Your task to perform on an android device: Open the calendar app, open the side menu, and click the "Day" option Image 0: 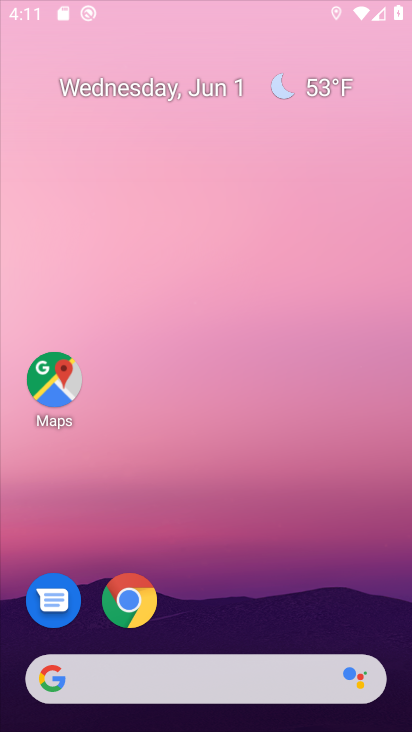
Step 0: drag from (209, 458) to (167, 197)
Your task to perform on an android device: Open the calendar app, open the side menu, and click the "Day" option Image 1: 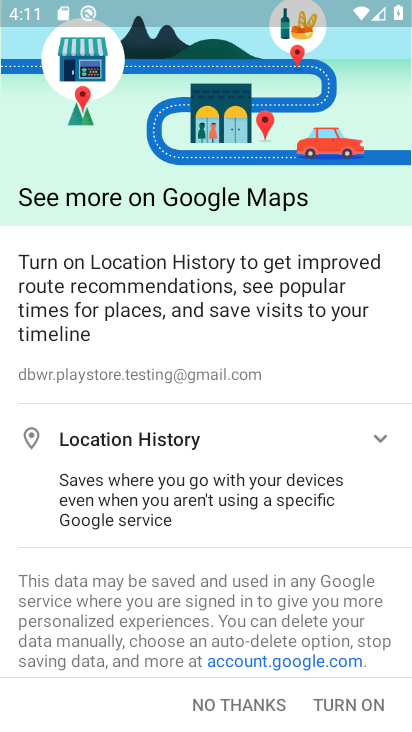
Step 1: press back button
Your task to perform on an android device: Open the calendar app, open the side menu, and click the "Day" option Image 2: 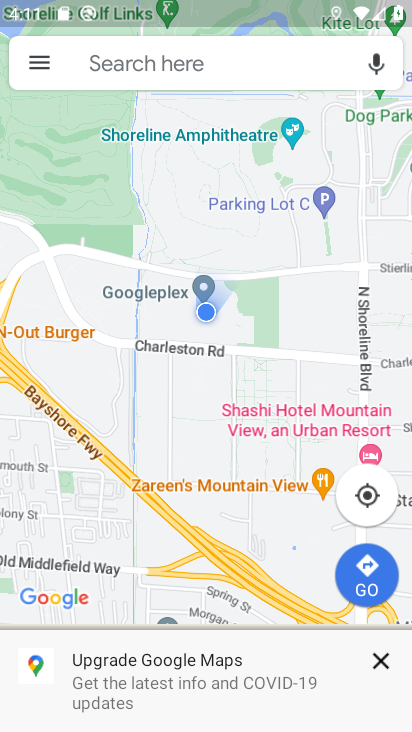
Step 2: press back button
Your task to perform on an android device: Open the calendar app, open the side menu, and click the "Day" option Image 3: 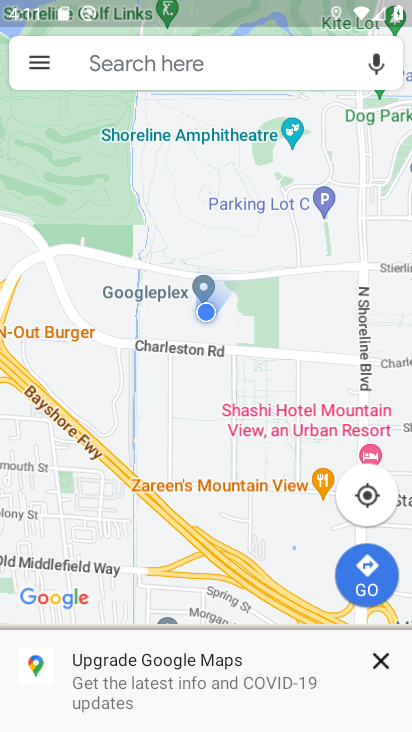
Step 3: press back button
Your task to perform on an android device: Open the calendar app, open the side menu, and click the "Day" option Image 4: 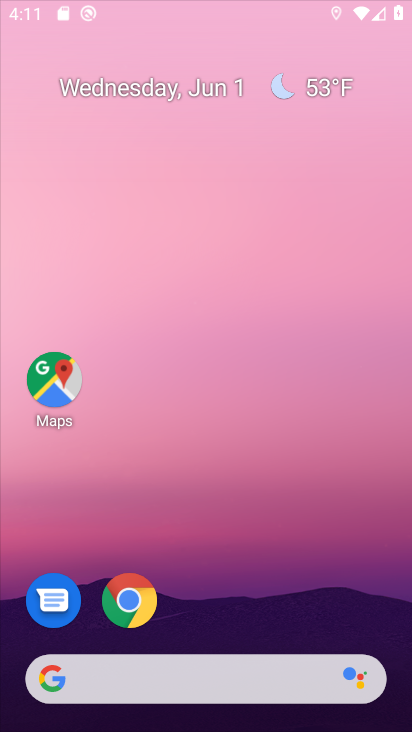
Step 4: press back button
Your task to perform on an android device: Open the calendar app, open the side menu, and click the "Day" option Image 5: 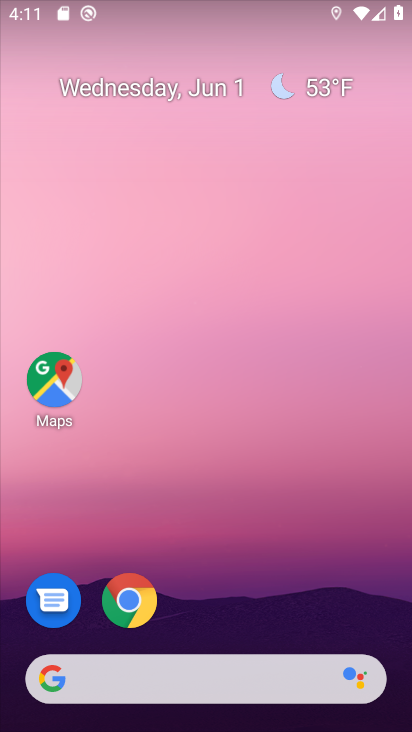
Step 5: drag from (220, 664) to (115, 169)
Your task to perform on an android device: Open the calendar app, open the side menu, and click the "Day" option Image 6: 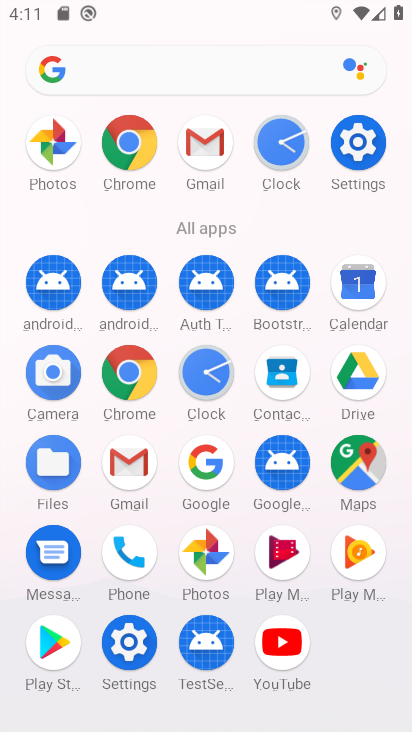
Step 6: click (308, 441)
Your task to perform on an android device: Open the calendar app, open the side menu, and click the "Day" option Image 7: 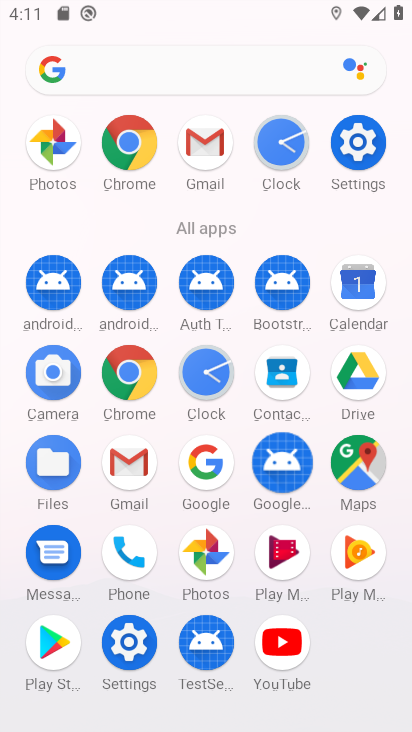
Step 7: click (368, 475)
Your task to perform on an android device: Open the calendar app, open the side menu, and click the "Day" option Image 8: 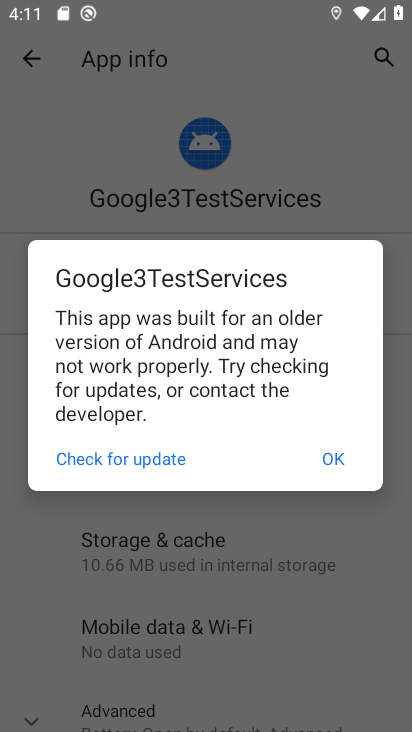
Step 8: click (332, 450)
Your task to perform on an android device: Open the calendar app, open the side menu, and click the "Day" option Image 9: 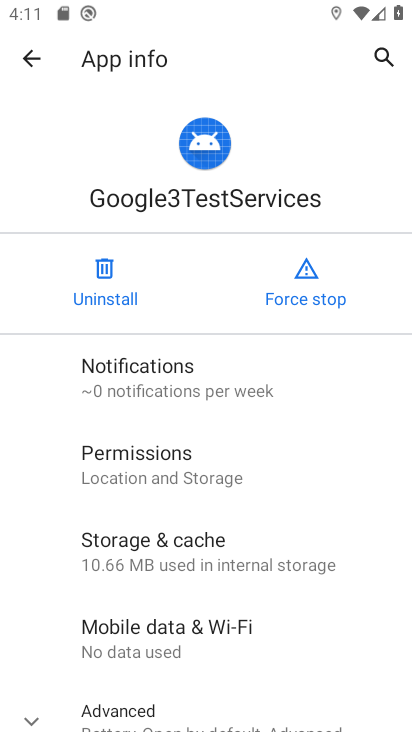
Step 9: click (29, 54)
Your task to perform on an android device: Open the calendar app, open the side menu, and click the "Day" option Image 10: 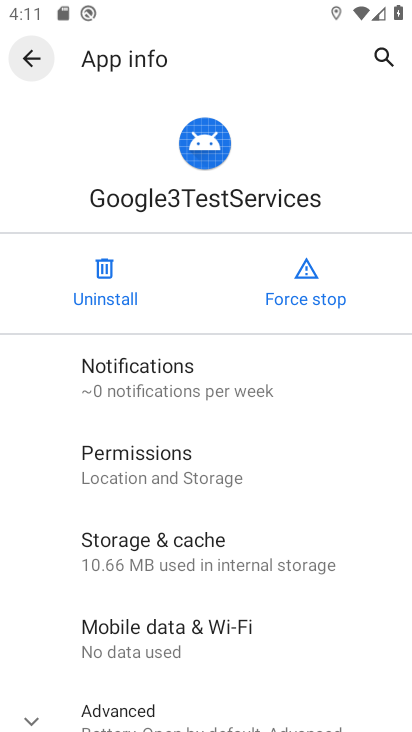
Step 10: click (29, 54)
Your task to perform on an android device: Open the calendar app, open the side menu, and click the "Day" option Image 11: 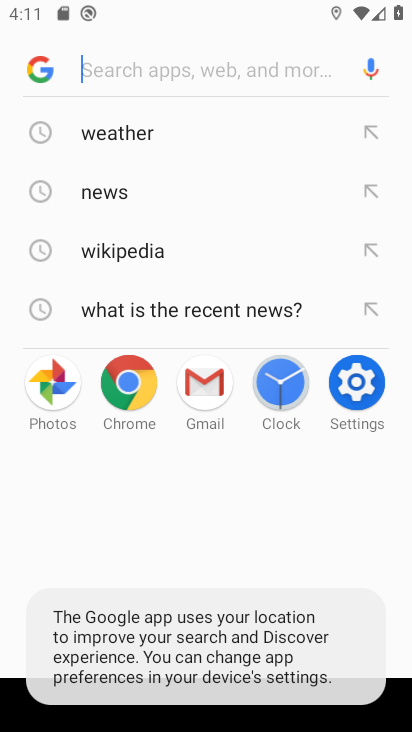
Step 11: press back button
Your task to perform on an android device: Open the calendar app, open the side menu, and click the "Day" option Image 12: 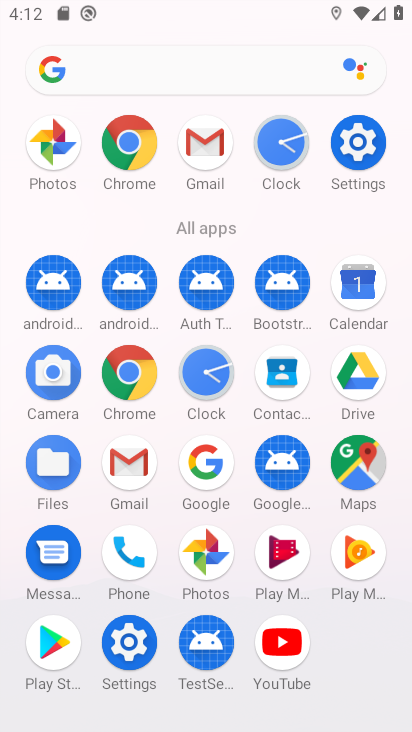
Step 12: click (372, 275)
Your task to perform on an android device: Open the calendar app, open the side menu, and click the "Day" option Image 13: 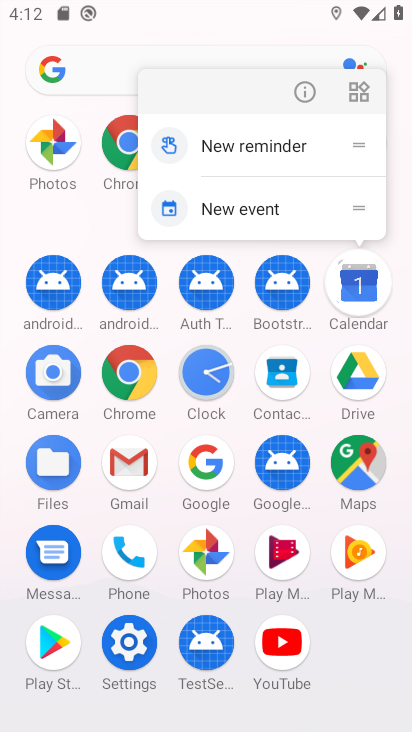
Step 13: click (375, 272)
Your task to perform on an android device: Open the calendar app, open the side menu, and click the "Day" option Image 14: 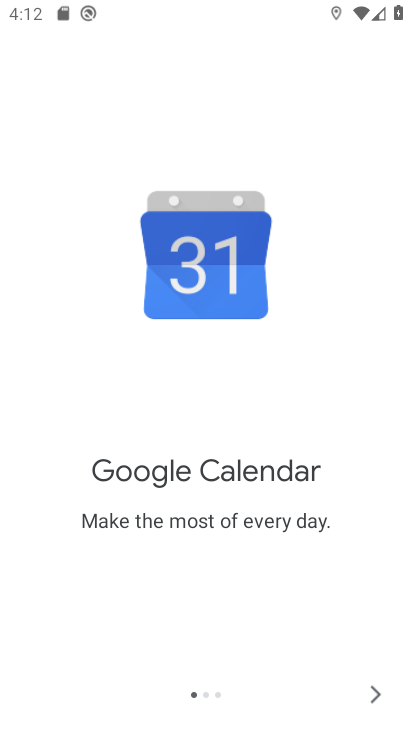
Step 14: click (376, 694)
Your task to perform on an android device: Open the calendar app, open the side menu, and click the "Day" option Image 15: 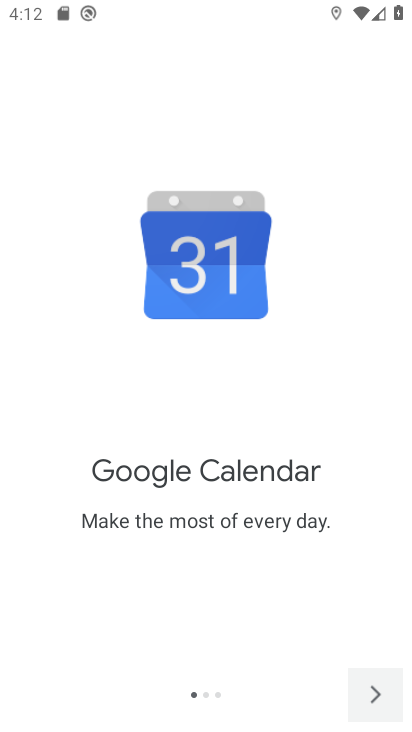
Step 15: click (376, 694)
Your task to perform on an android device: Open the calendar app, open the side menu, and click the "Day" option Image 16: 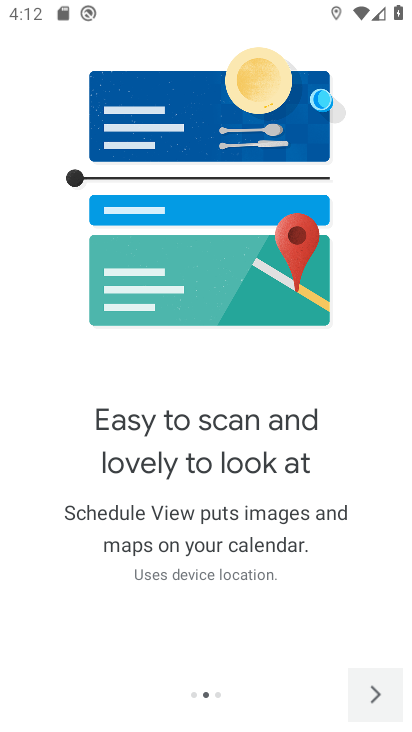
Step 16: click (376, 694)
Your task to perform on an android device: Open the calendar app, open the side menu, and click the "Day" option Image 17: 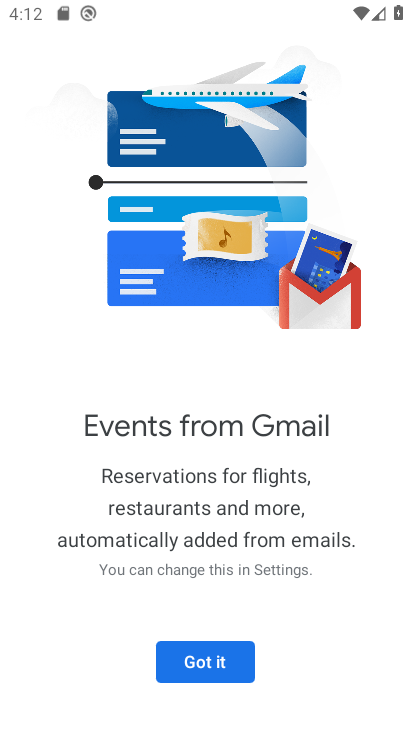
Step 17: click (197, 657)
Your task to perform on an android device: Open the calendar app, open the side menu, and click the "Day" option Image 18: 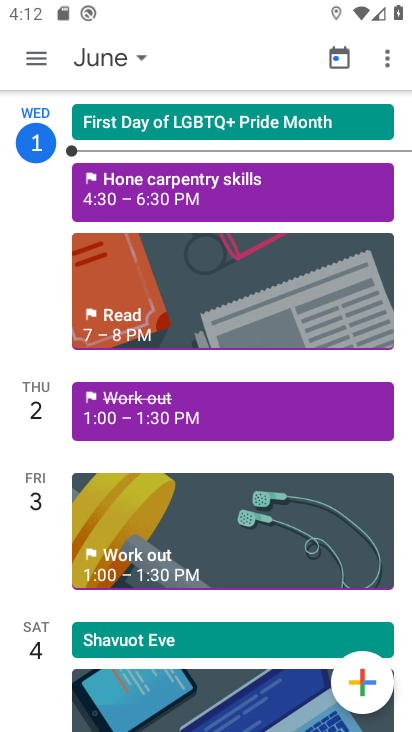
Step 18: click (138, 51)
Your task to perform on an android device: Open the calendar app, open the side menu, and click the "Day" option Image 19: 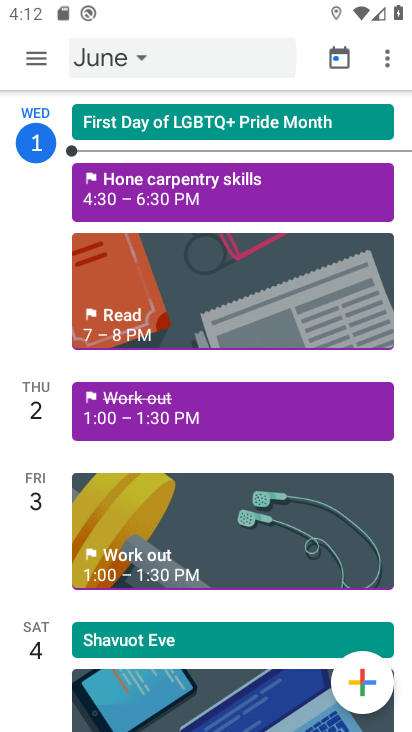
Step 19: click (36, 68)
Your task to perform on an android device: Open the calendar app, open the side menu, and click the "Day" option Image 20: 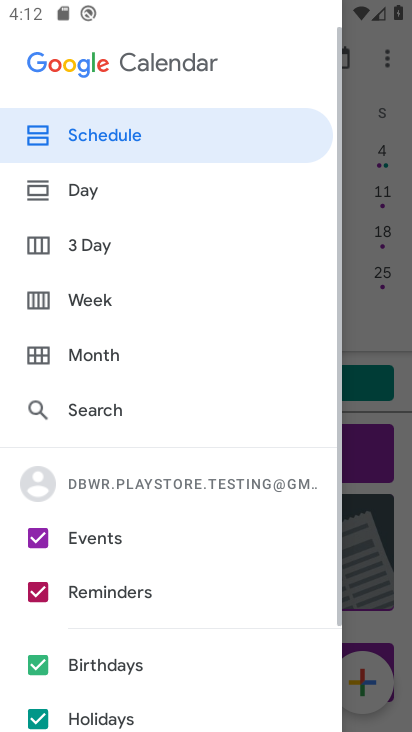
Step 20: click (78, 197)
Your task to perform on an android device: Open the calendar app, open the side menu, and click the "Day" option Image 21: 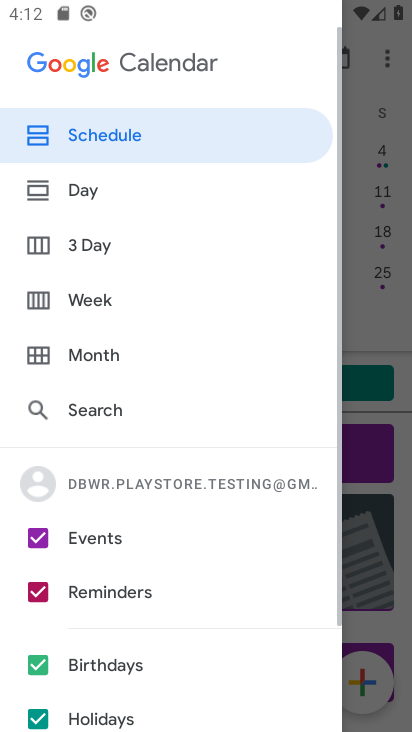
Step 21: click (79, 193)
Your task to perform on an android device: Open the calendar app, open the side menu, and click the "Day" option Image 22: 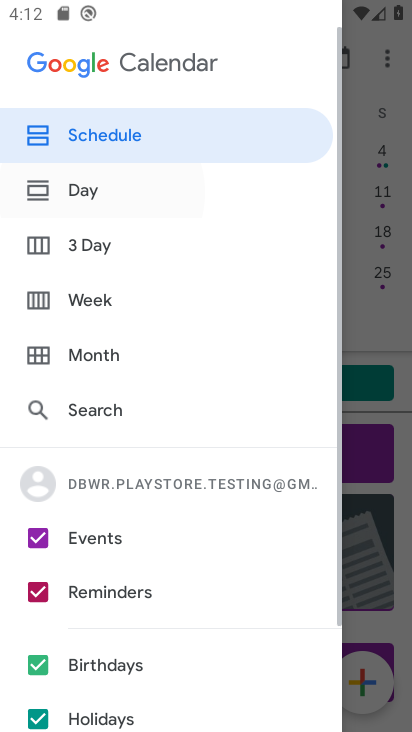
Step 22: click (82, 190)
Your task to perform on an android device: Open the calendar app, open the side menu, and click the "Day" option Image 23: 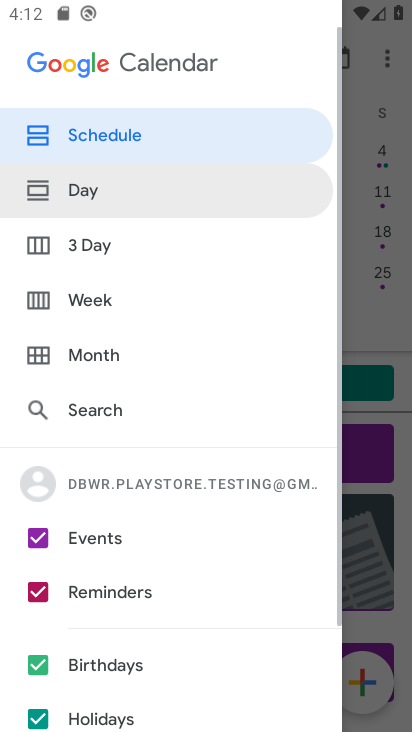
Step 23: click (86, 190)
Your task to perform on an android device: Open the calendar app, open the side menu, and click the "Day" option Image 24: 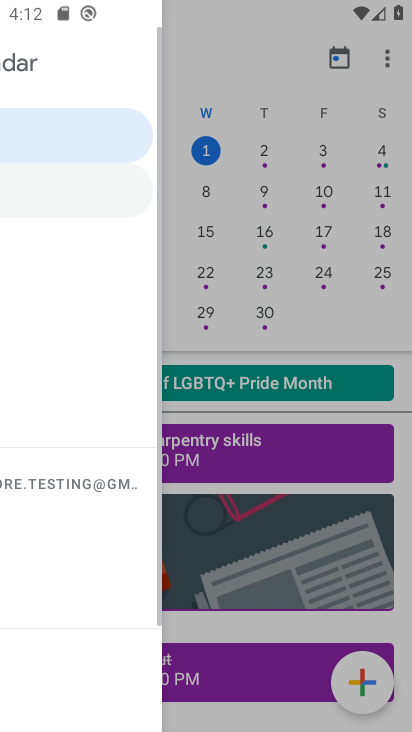
Step 24: click (86, 190)
Your task to perform on an android device: Open the calendar app, open the side menu, and click the "Day" option Image 25: 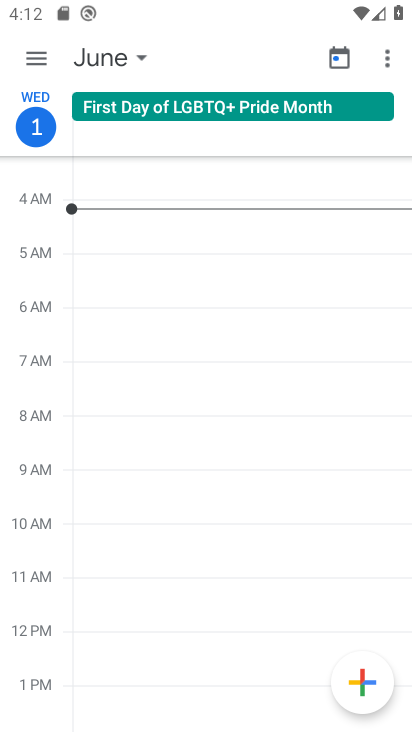
Step 25: task complete